Your task to perform on an android device: Open privacy settings Image 0: 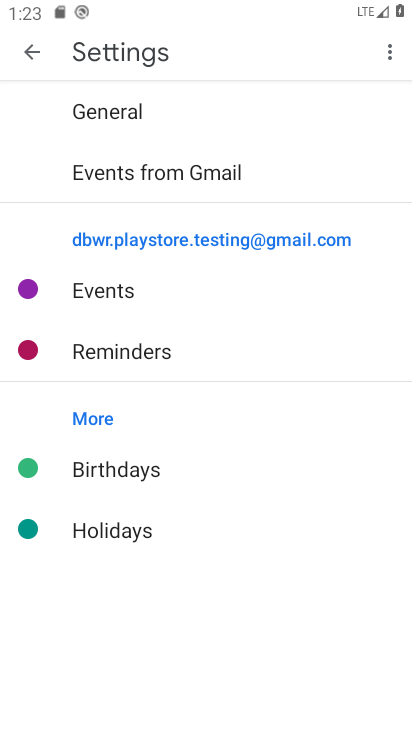
Step 0: drag from (303, 283) to (326, 204)
Your task to perform on an android device: Open privacy settings Image 1: 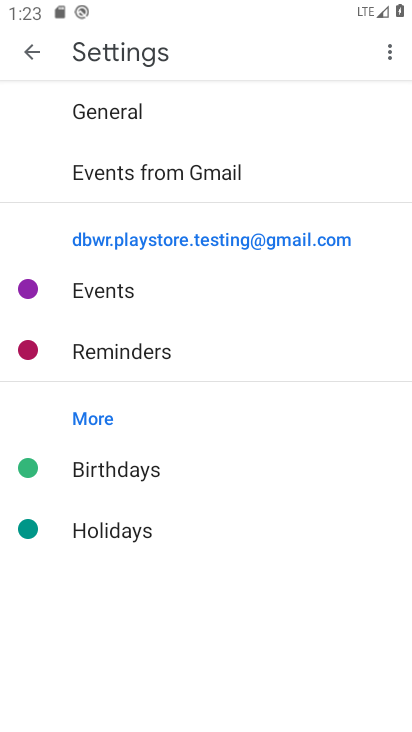
Step 1: press home button
Your task to perform on an android device: Open privacy settings Image 2: 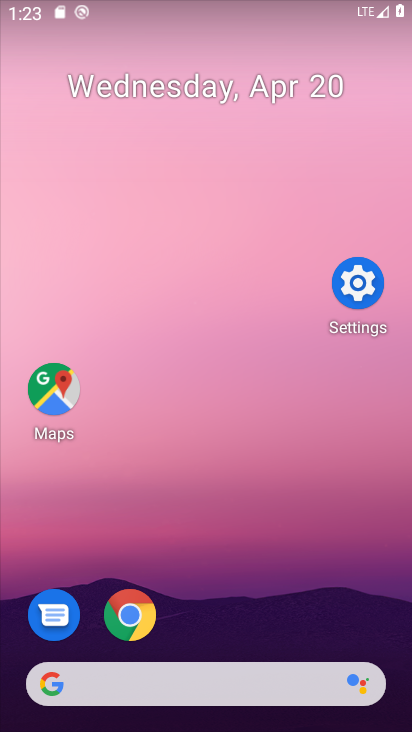
Step 2: drag from (159, 370) to (188, 180)
Your task to perform on an android device: Open privacy settings Image 3: 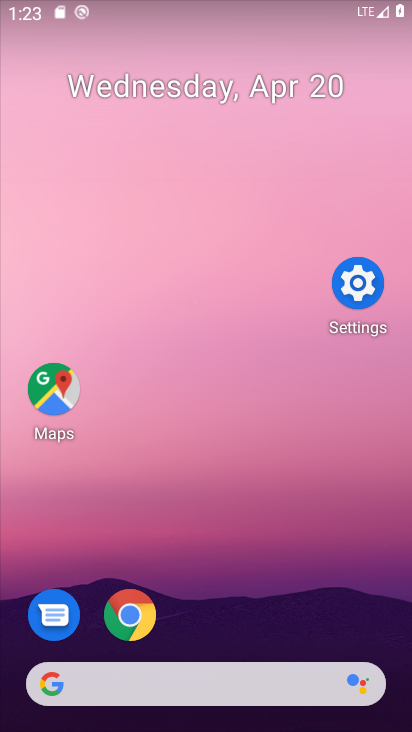
Step 3: click (357, 290)
Your task to perform on an android device: Open privacy settings Image 4: 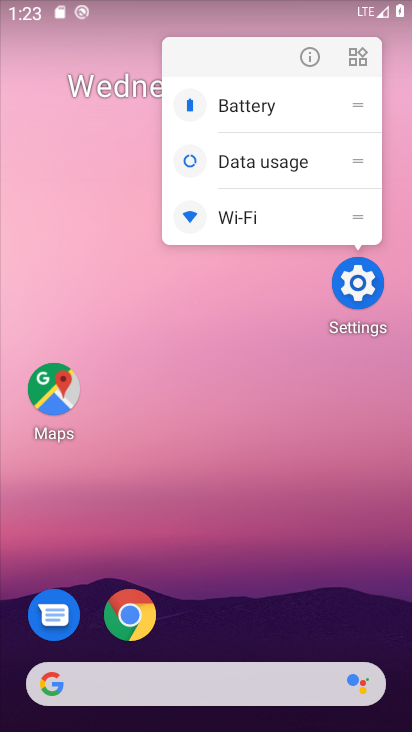
Step 4: click (311, 49)
Your task to perform on an android device: Open privacy settings Image 5: 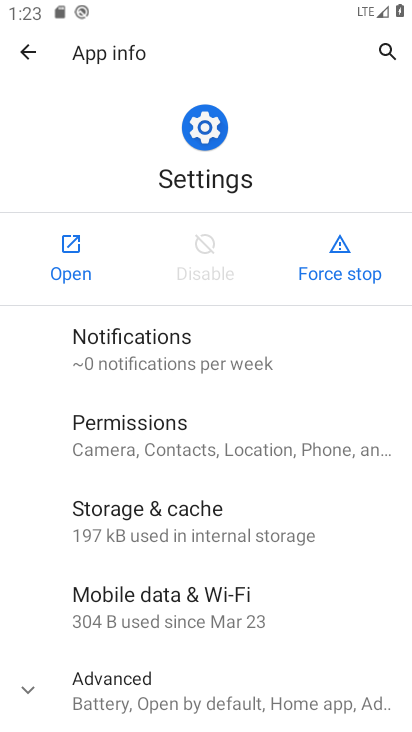
Step 5: click (59, 265)
Your task to perform on an android device: Open privacy settings Image 6: 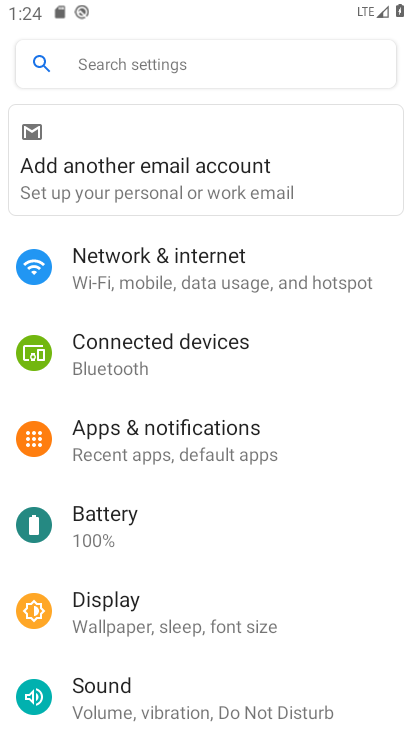
Step 6: drag from (238, 421) to (286, 247)
Your task to perform on an android device: Open privacy settings Image 7: 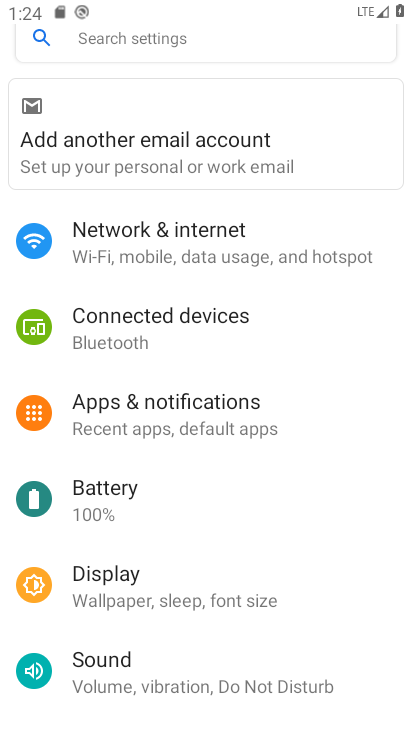
Step 7: drag from (156, 540) to (240, 166)
Your task to perform on an android device: Open privacy settings Image 8: 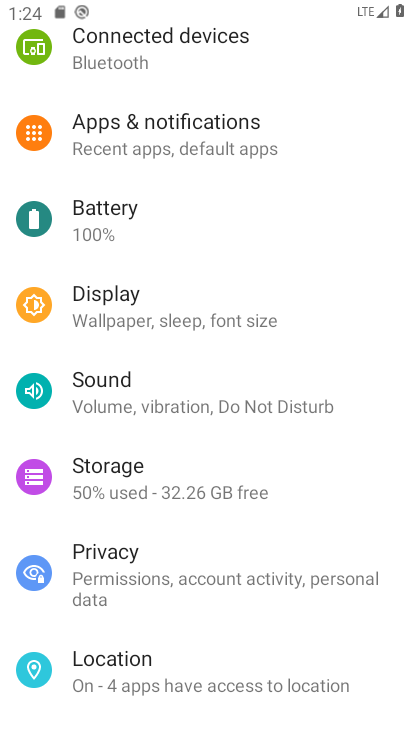
Step 8: click (154, 578)
Your task to perform on an android device: Open privacy settings Image 9: 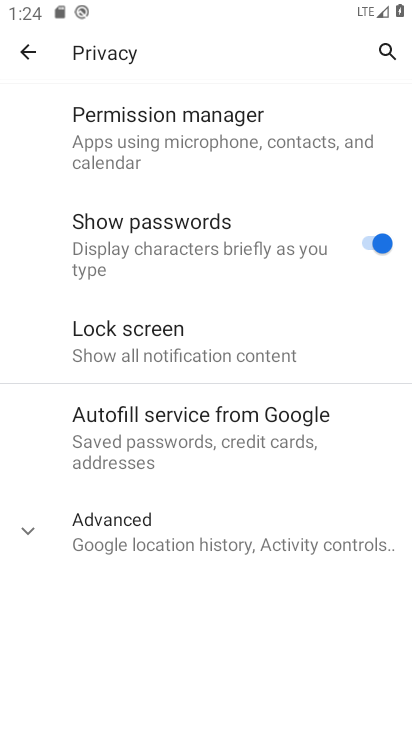
Step 9: drag from (222, 535) to (304, 233)
Your task to perform on an android device: Open privacy settings Image 10: 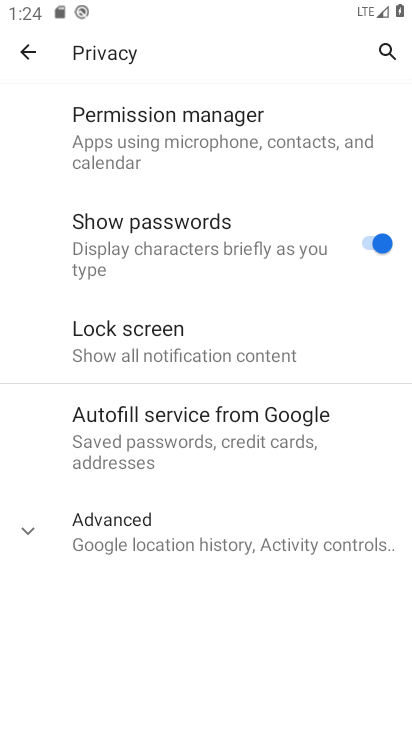
Step 10: click (169, 545)
Your task to perform on an android device: Open privacy settings Image 11: 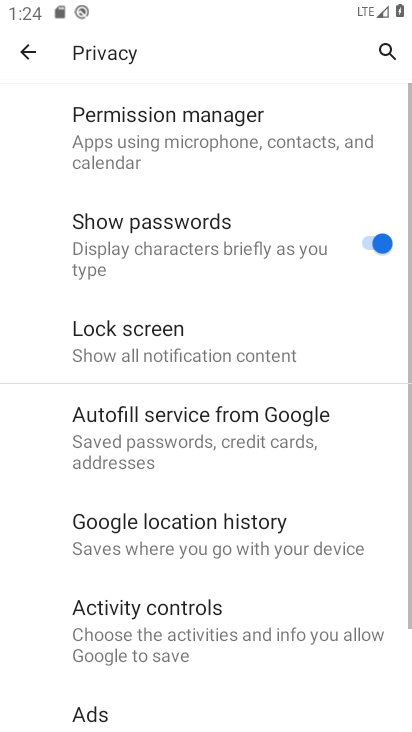
Step 11: task complete